Your task to perform on an android device: Open the Play Movies app and select the watchlist tab. Image 0: 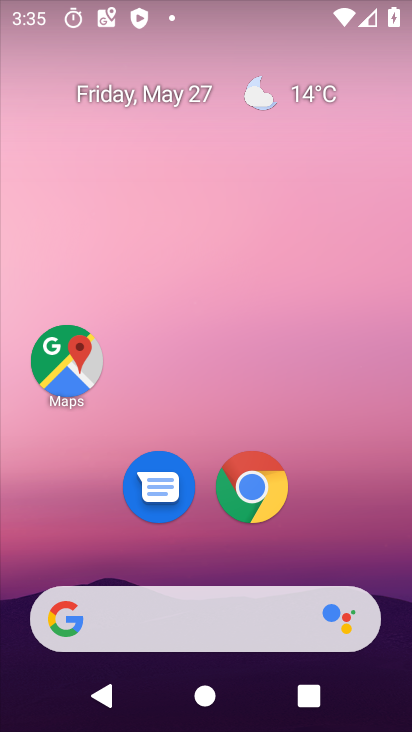
Step 0: drag from (380, 487) to (331, 71)
Your task to perform on an android device: Open the Play Movies app and select the watchlist tab. Image 1: 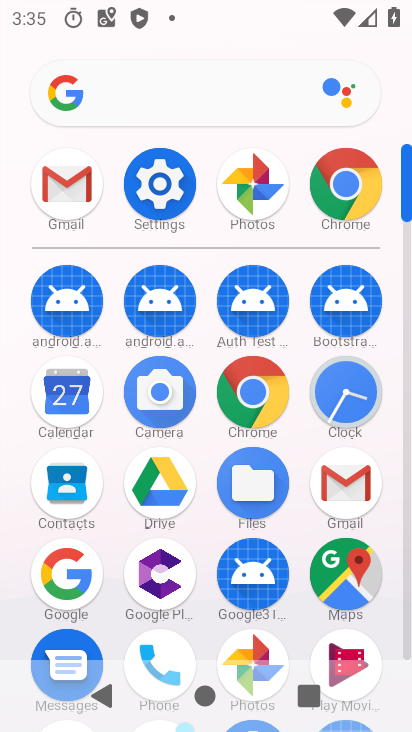
Step 1: drag from (285, 482) to (283, 176)
Your task to perform on an android device: Open the Play Movies app and select the watchlist tab. Image 2: 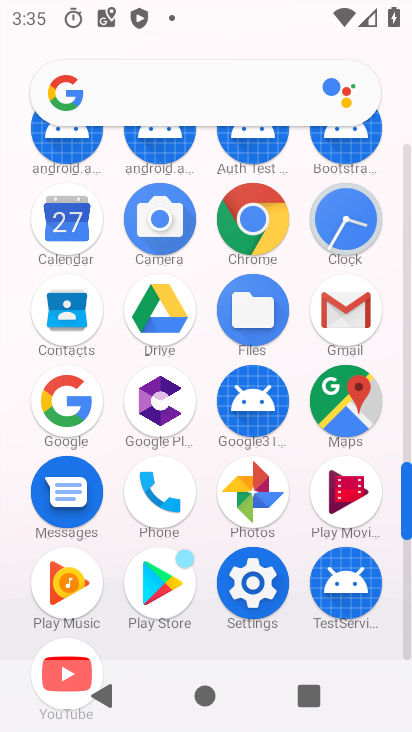
Step 2: drag from (298, 335) to (273, 681)
Your task to perform on an android device: Open the Play Movies app and select the watchlist tab. Image 3: 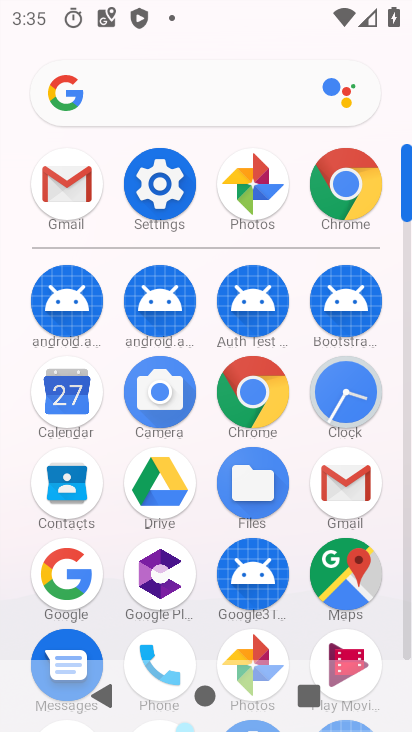
Step 3: drag from (279, 594) to (294, 271)
Your task to perform on an android device: Open the Play Movies app and select the watchlist tab. Image 4: 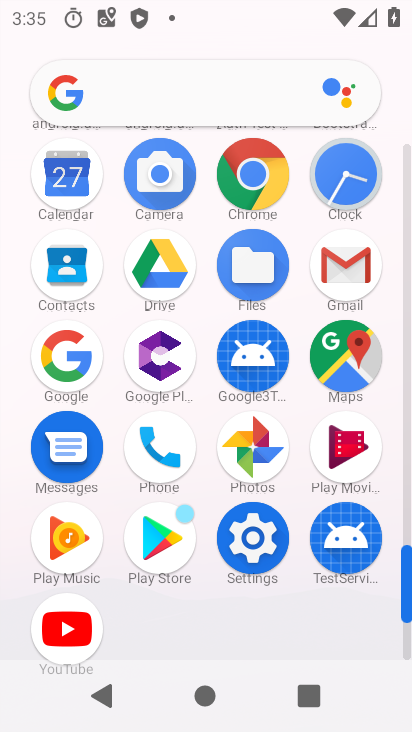
Step 4: click (322, 457)
Your task to perform on an android device: Open the Play Movies app and select the watchlist tab. Image 5: 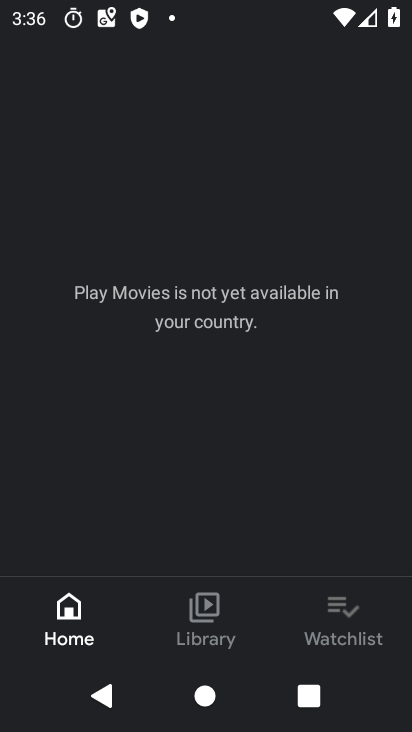
Step 5: click (336, 621)
Your task to perform on an android device: Open the Play Movies app and select the watchlist tab. Image 6: 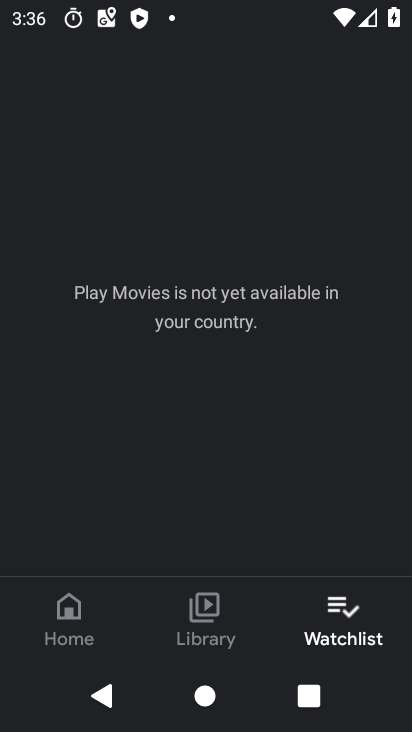
Step 6: task complete